Your task to perform on an android device: toggle javascript in the chrome app Image 0: 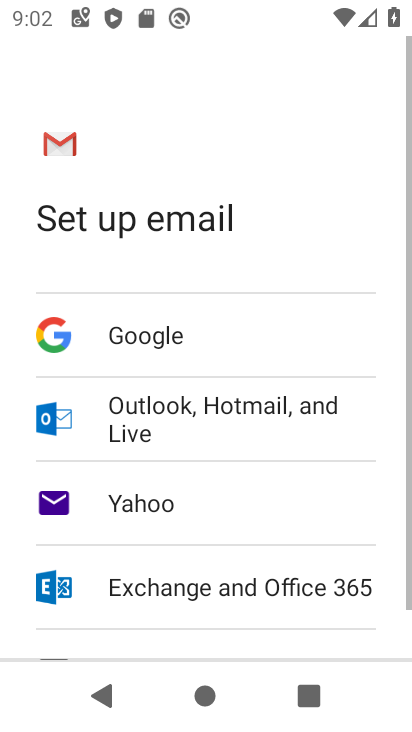
Step 0: press home button
Your task to perform on an android device: toggle javascript in the chrome app Image 1: 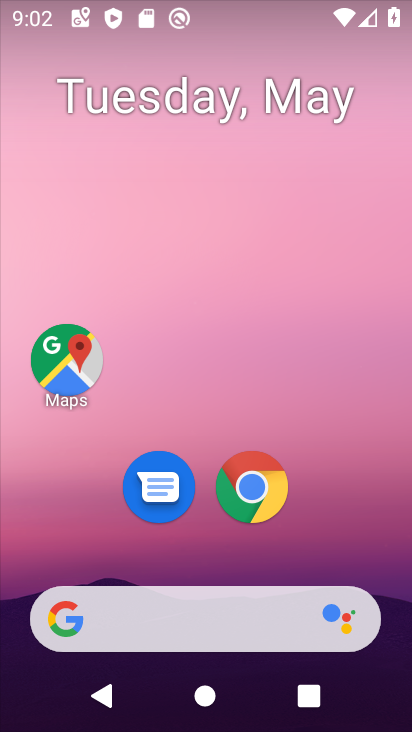
Step 1: drag from (365, 545) to (360, 146)
Your task to perform on an android device: toggle javascript in the chrome app Image 2: 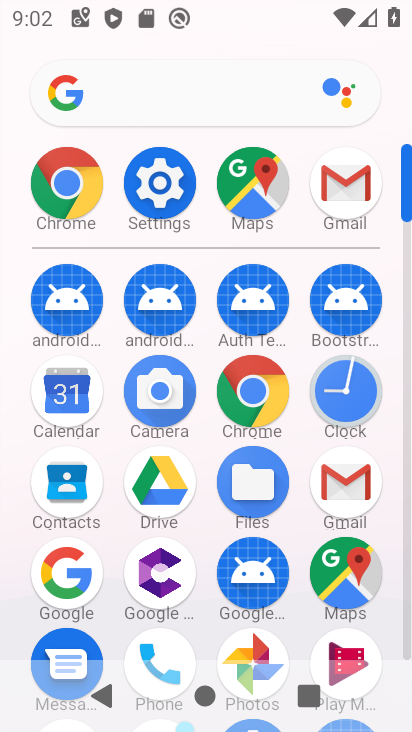
Step 2: click (270, 406)
Your task to perform on an android device: toggle javascript in the chrome app Image 3: 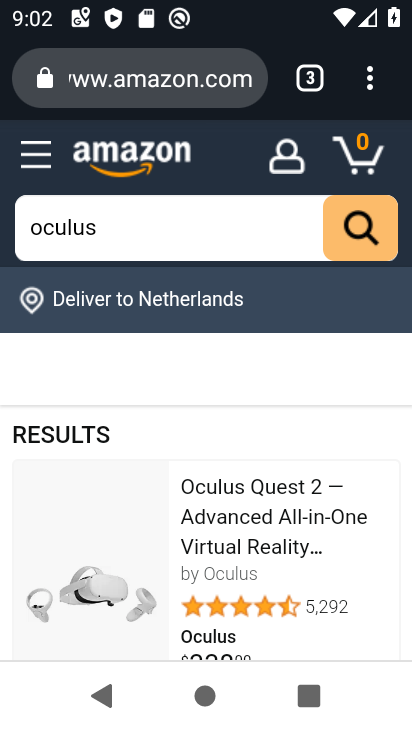
Step 3: click (368, 86)
Your task to perform on an android device: toggle javascript in the chrome app Image 4: 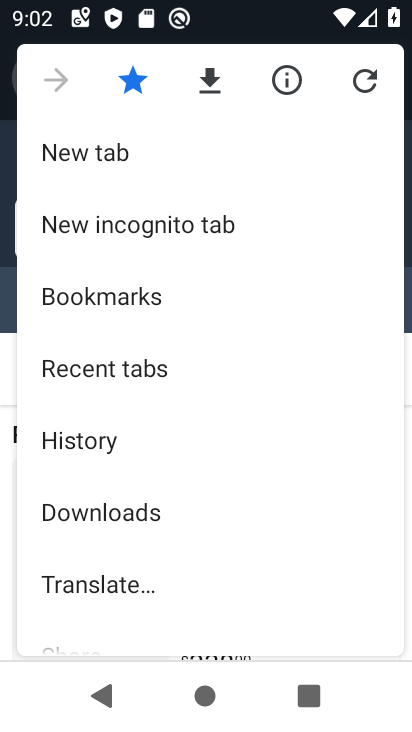
Step 4: drag from (300, 405) to (299, 337)
Your task to perform on an android device: toggle javascript in the chrome app Image 5: 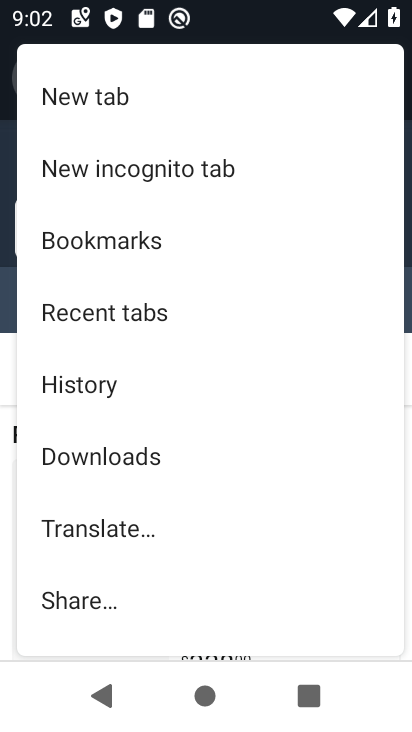
Step 5: drag from (299, 453) to (299, 331)
Your task to perform on an android device: toggle javascript in the chrome app Image 6: 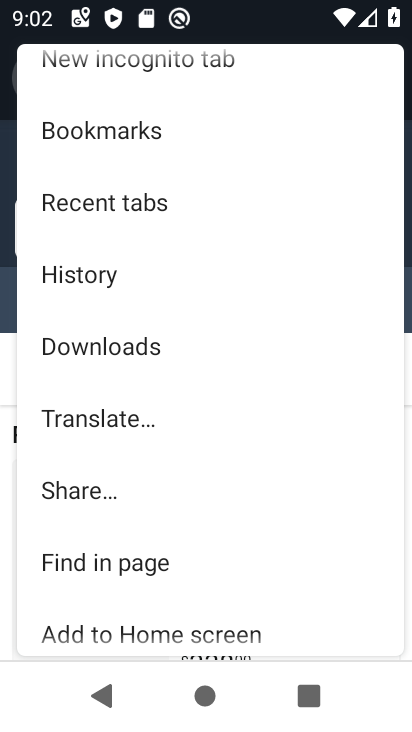
Step 6: drag from (304, 462) to (308, 350)
Your task to perform on an android device: toggle javascript in the chrome app Image 7: 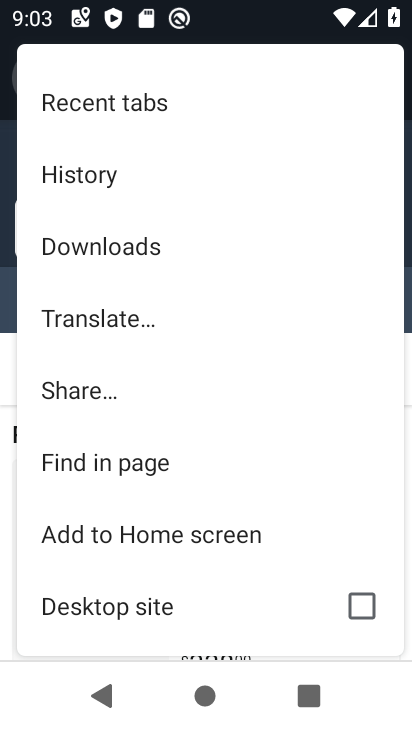
Step 7: drag from (297, 456) to (297, 353)
Your task to perform on an android device: toggle javascript in the chrome app Image 8: 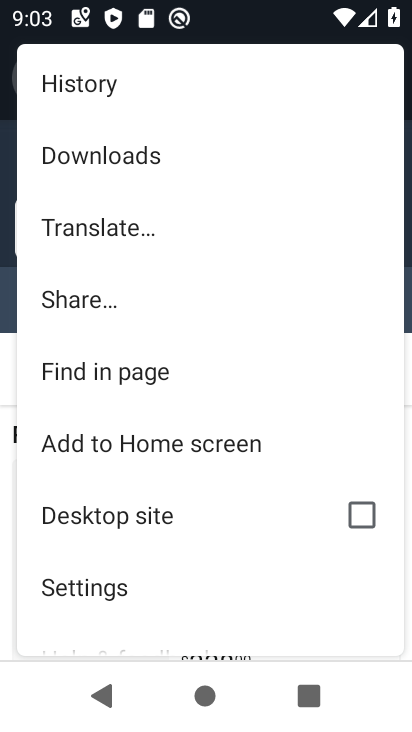
Step 8: drag from (295, 461) to (292, 369)
Your task to perform on an android device: toggle javascript in the chrome app Image 9: 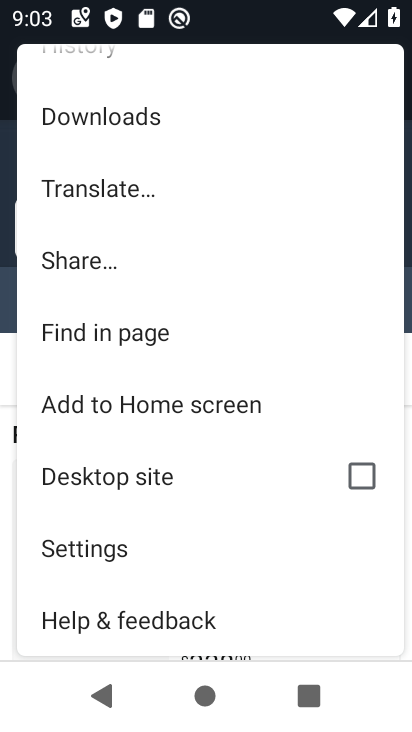
Step 9: click (213, 559)
Your task to perform on an android device: toggle javascript in the chrome app Image 10: 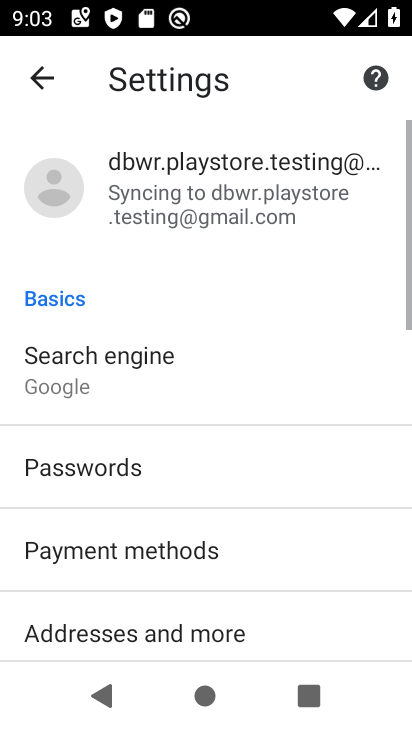
Step 10: drag from (305, 524) to (294, 425)
Your task to perform on an android device: toggle javascript in the chrome app Image 11: 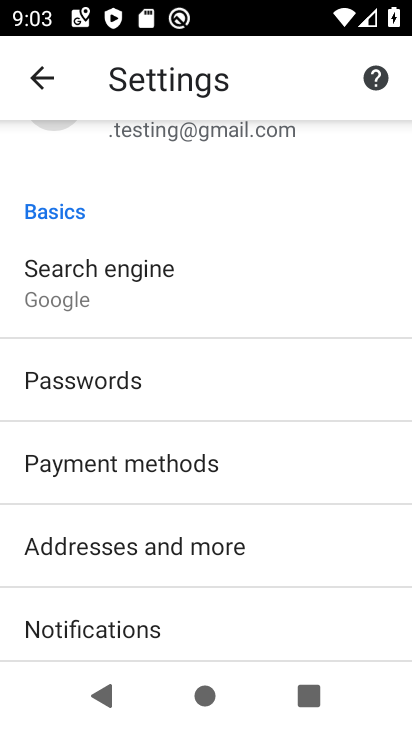
Step 11: drag from (318, 490) to (331, 361)
Your task to perform on an android device: toggle javascript in the chrome app Image 12: 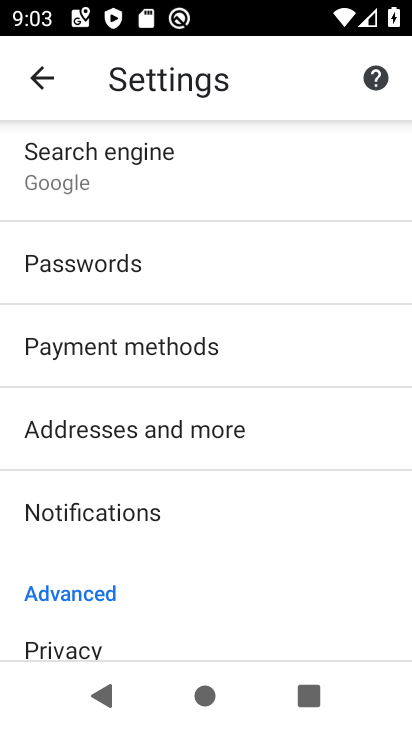
Step 12: drag from (330, 480) to (325, 386)
Your task to perform on an android device: toggle javascript in the chrome app Image 13: 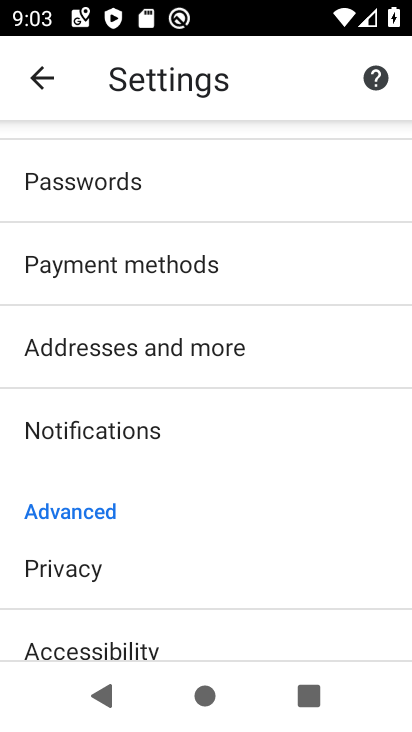
Step 13: drag from (322, 469) to (319, 386)
Your task to perform on an android device: toggle javascript in the chrome app Image 14: 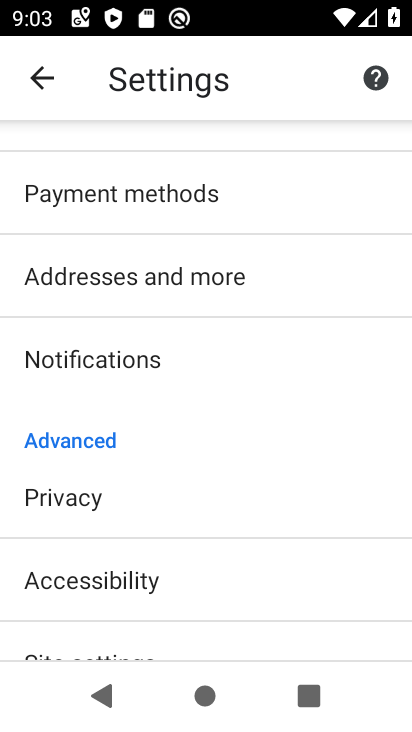
Step 14: drag from (316, 468) to (320, 369)
Your task to perform on an android device: toggle javascript in the chrome app Image 15: 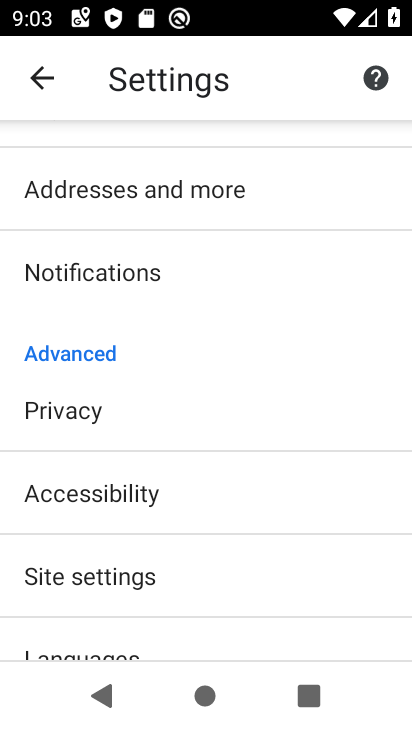
Step 15: drag from (322, 489) to (324, 382)
Your task to perform on an android device: toggle javascript in the chrome app Image 16: 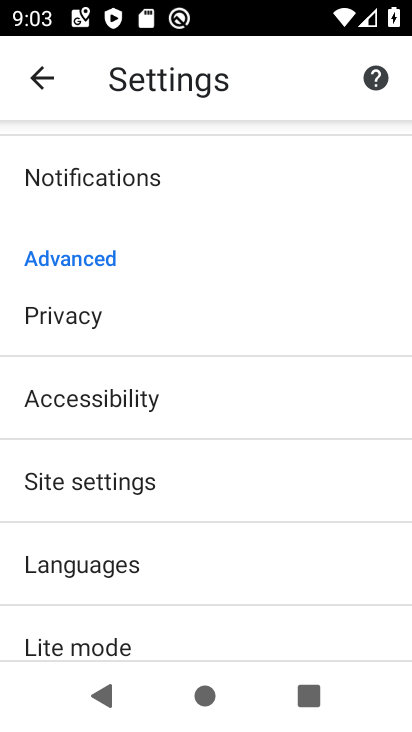
Step 16: click (285, 490)
Your task to perform on an android device: toggle javascript in the chrome app Image 17: 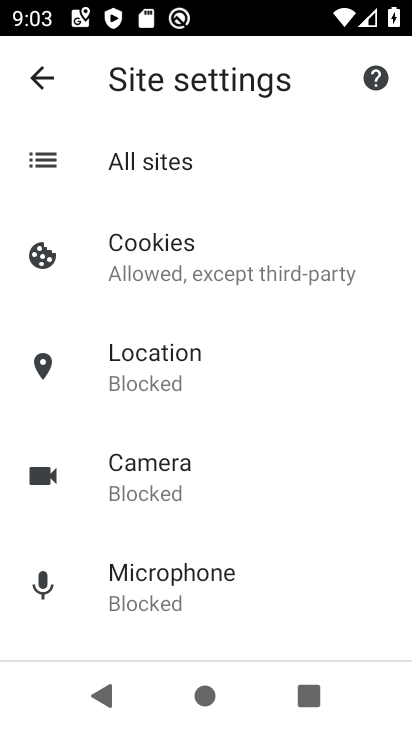
Step 17: drag from (303, 503) to (312, 400)
Your task to perform on an android device: toggle javascript in the chrome app Image 18: 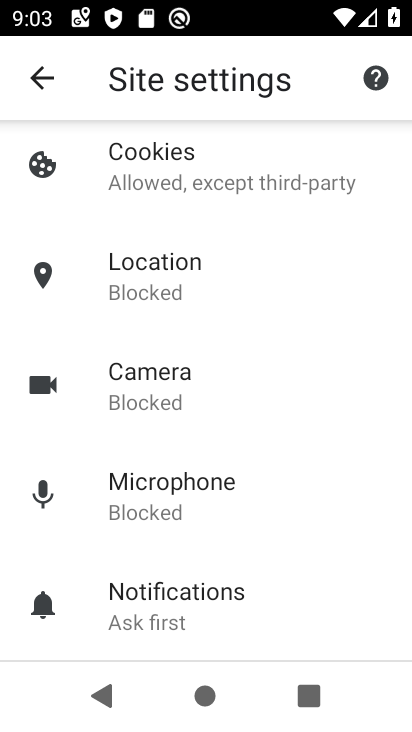
Step 18: drag from (329, 465) to (329, 383)
Your task to perform on an android device: toggle javascript in the chrome app Image 19: 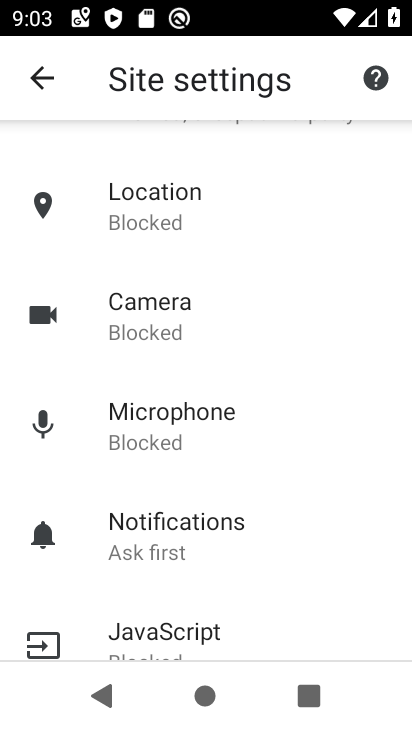
Step 19: drag from (317, 489) to (311, 373)
Your task to perform on an android device: toggle javascript in the chrome app Image 20: 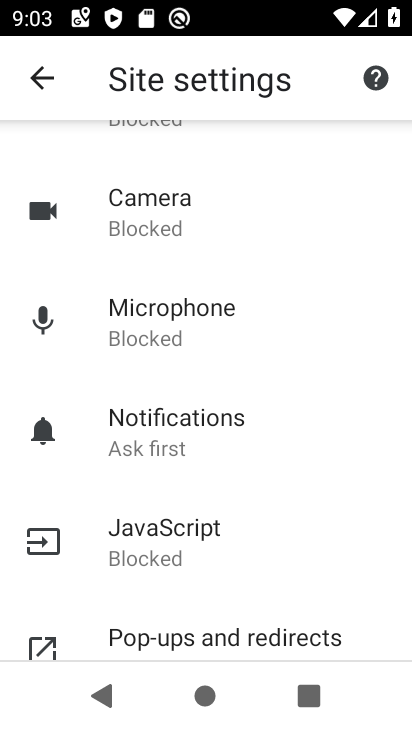
Step 20: drag from (309, 467) to (305, 368)
Your task to perform on an android device: toggle javascript in the chrome app Image 21: 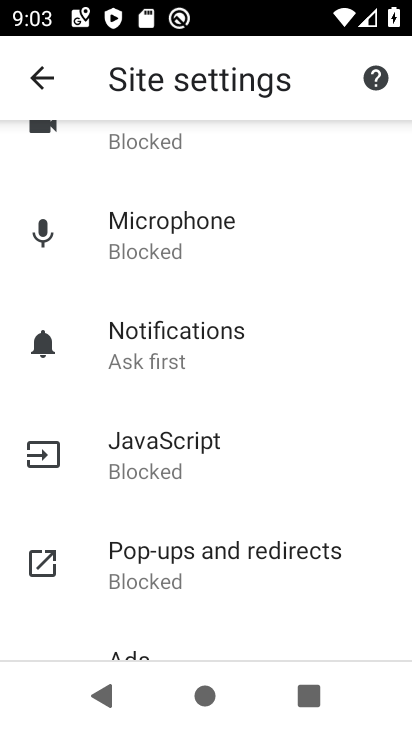
Step 21: drag from (305, 462) to (306, 393)
Your task to perform on an android device: toggle javascript in the chrome app Image 22: 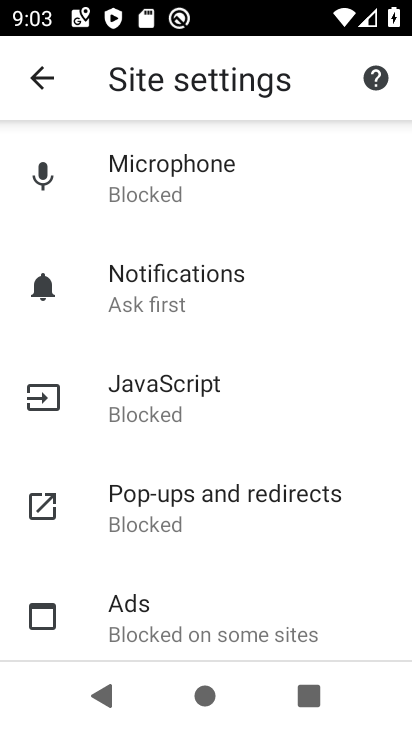
Step 22: click (244, 417)
Your task to perform on an android device: toggle javascript in the chrome app Image 23: 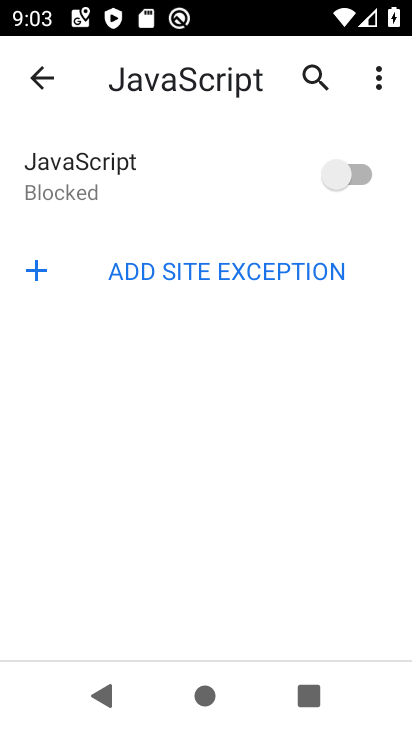
Step 23: click (328, 187)
Your task to perform on an android device: toggle javascript in the chrome app Image 24: 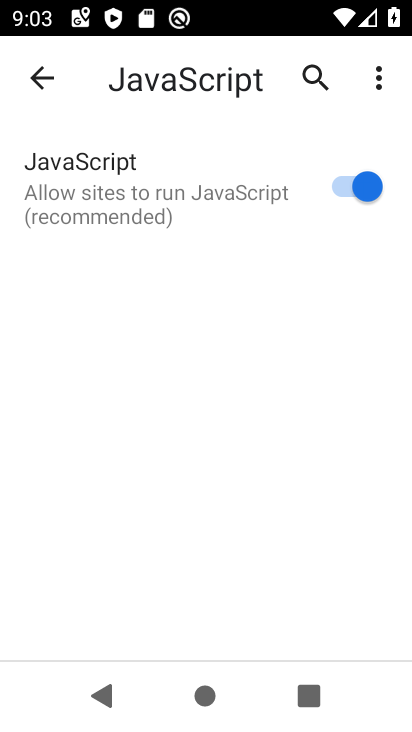
Step 24: task complete